Your task to perform on an android device: Open the calendar app, open the side menu, and click the "Day" option Image 0: 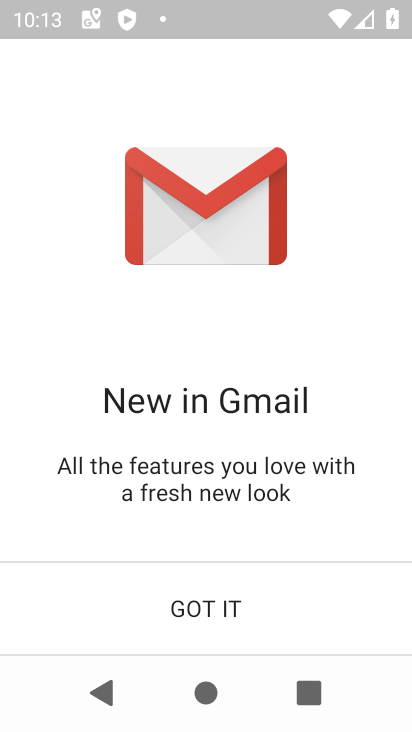
Step 0: press home button
Your task to perform on an android device: Open the calendar app, open the side menu, and click the "Day" option Image 1: 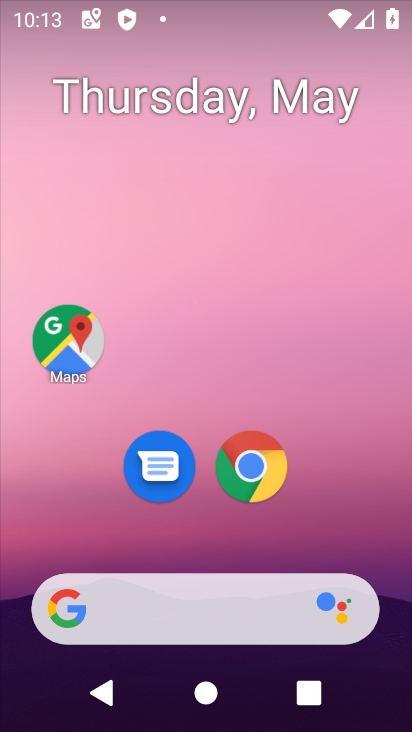
Step 1: drag from (313, 352) to (327, 218)
Your task to perform on an android device: Open the calendar app, open the side menu, and click the "Day" option Image 2: 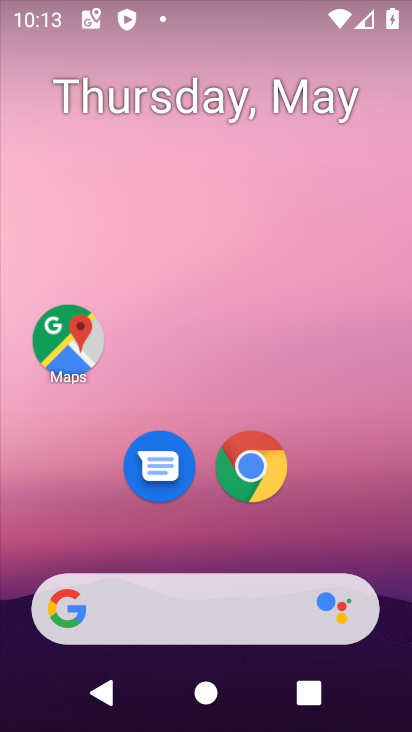
Step 2: drag from (324, 482) to (349, 185)
Your task to perform on an android device: Open the calendar app, open the side menu, and click the "Day" option Image 3: 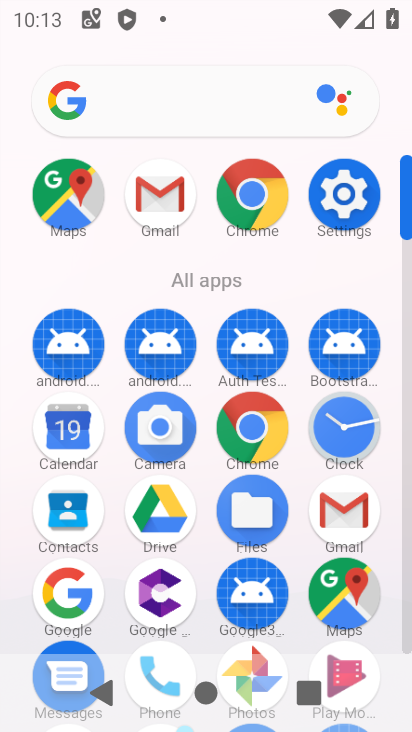
Step 3: click (50, 408)
Your task to perform on an android device: Open the calendar app, open the side menu, and click the "Day" option Image 4: 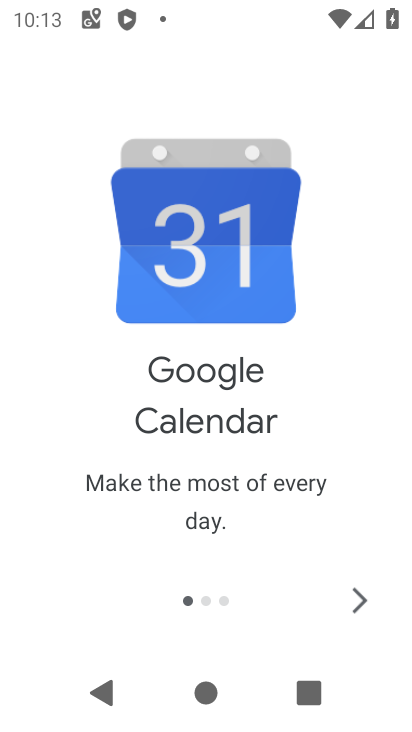
Step 4: click (344, 592)
Your task to perform on an android device: Open the calendar app, open the side menu, and click the "Day" option Image 5: 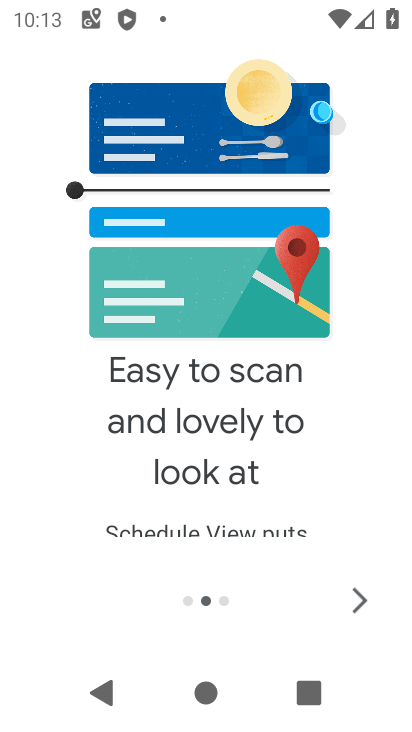
Step 5: click (344, 592)
Your task to perform on an android device: Open the calendar app, open the side menu, and click the "Day" option Image 6: 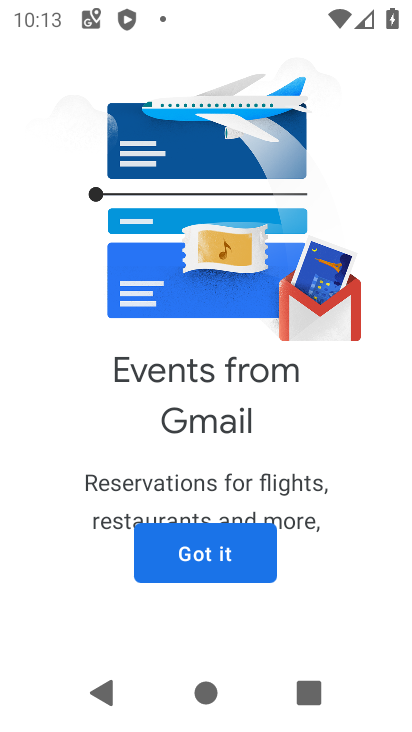
Step 6: click (344, 592)
Your task to perform on an android device: Open the calendar app, open the side menu, and click the "Day" option Image 7: 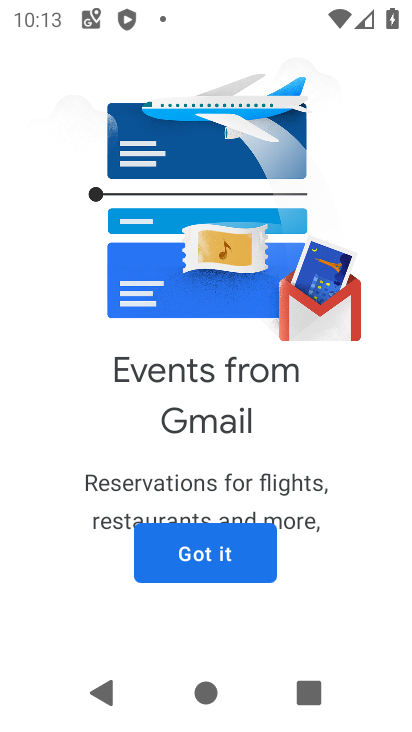
Step 7: click (159, 518)
Your task to perform on an android device: Open the calendar app, open the side menu, and click the "Day" option Image 8: 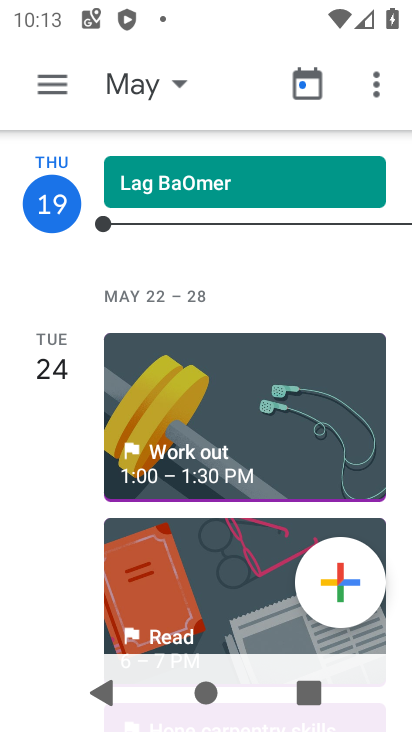
Step 8: click (62, 85)
Your task to perform on an android device: Open the calendar app, open the side menu, and click the "Day" option Image 9: 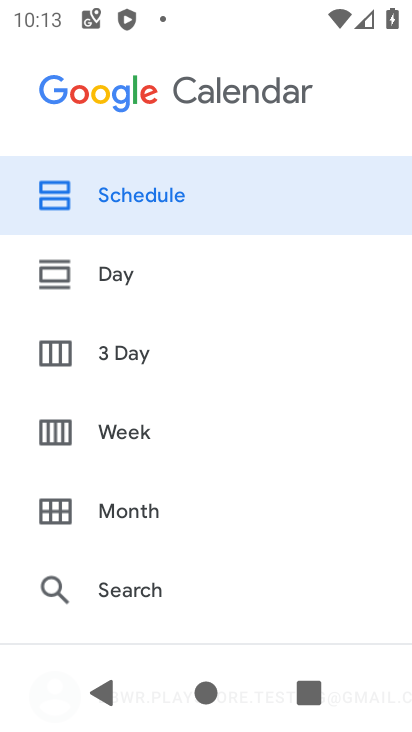
Step 9: click (129, 279)
Your task to perform on an android device: Open the calendar app, open the side menu, and click the "Day" option Image 10: 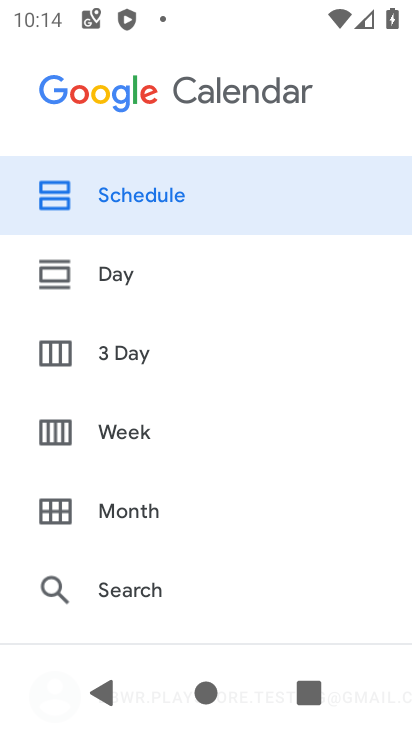
Step 10: task complete